Your task to perform on an android device: Open Google Maps Image 0: 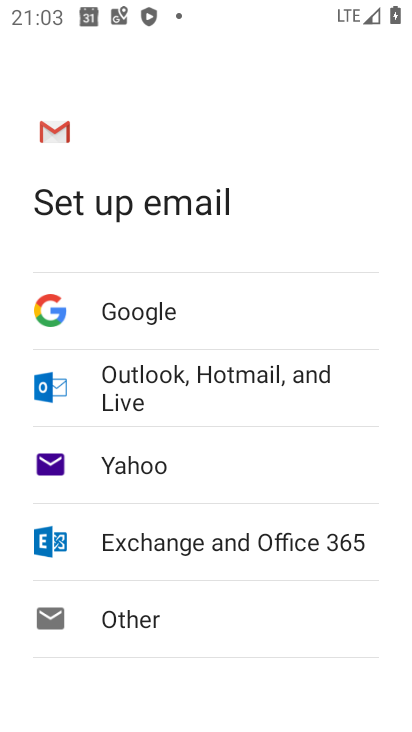
Step 0: press home button
Your task to perform on an android device: Open Google Maps Image 1: 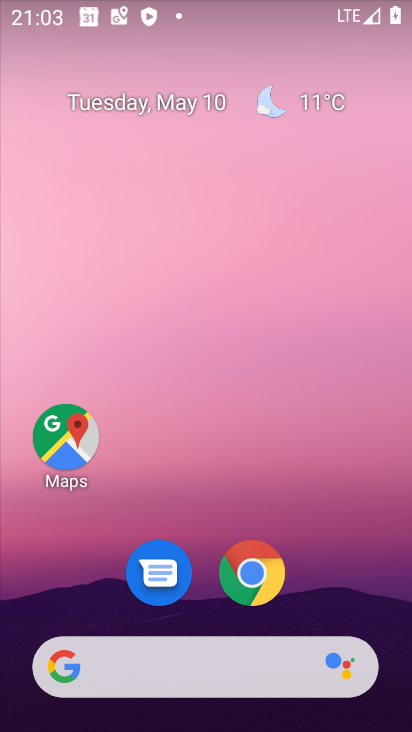
Step 1: click (66, 439)
Your task to perform on an android device: Open Google Maps Image 2: 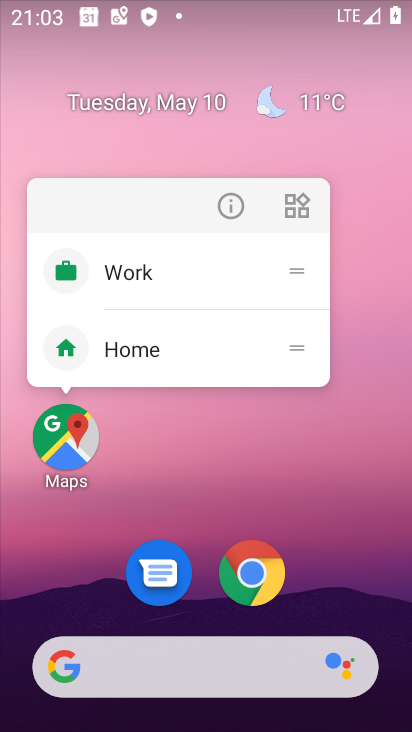
Step 2: click (59, 438)
Your task to perform on an android device: Open Google Maps Image 3: 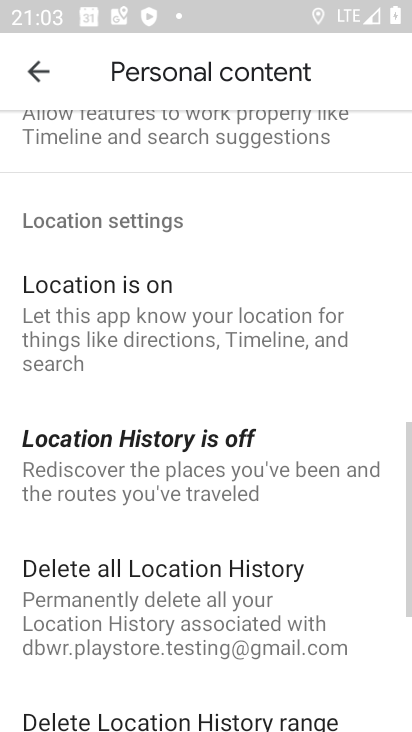
Step 3: click (46, 79)
Your task to perform on an android device: Open Google Maps Image 4: 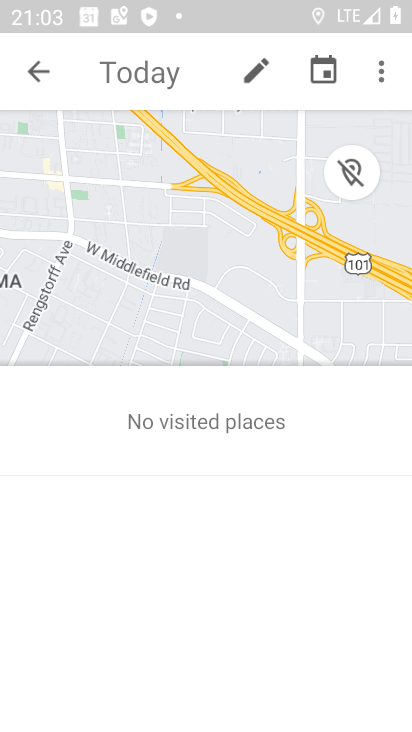
Step 4: click (46, 72)
Your task to perform on an android device: Open Google Maps Image 5: 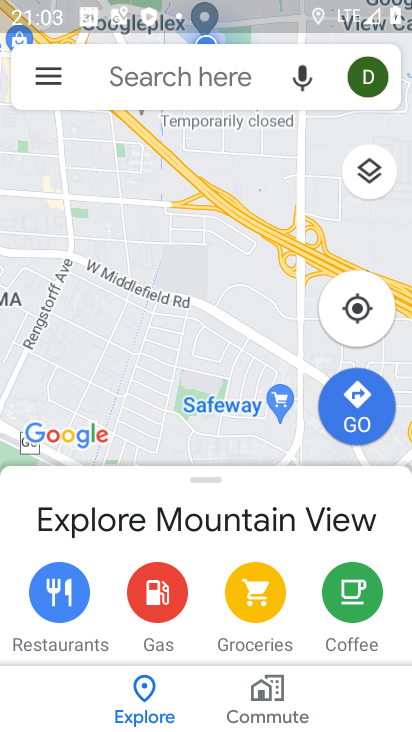
Step 5: task complete